Your task to perform on an android device: Go to Wikipedia Image 0: 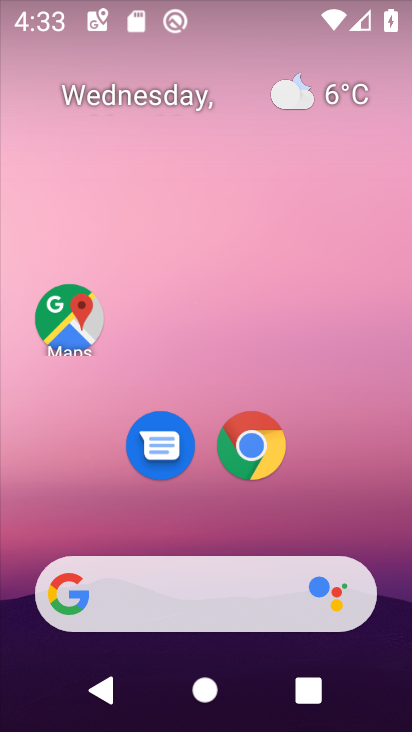
Step 0: click (260, 463)
Your task to perform on an android device: Go to Wikipedia Image 1: 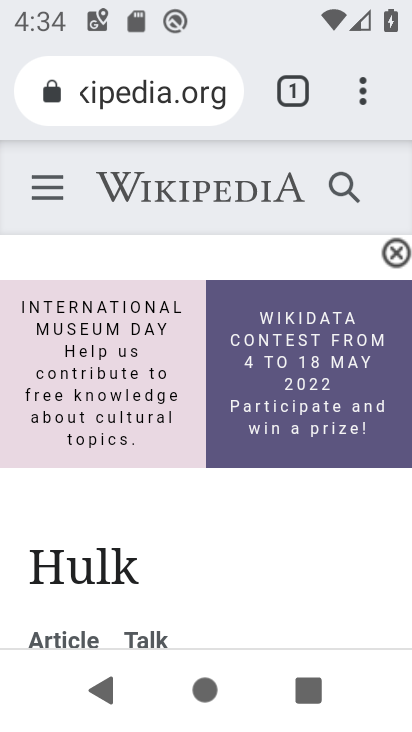
Step 1: click (256, 445)
Your task to perform on an android device: Go to Wikipedia Image 2: 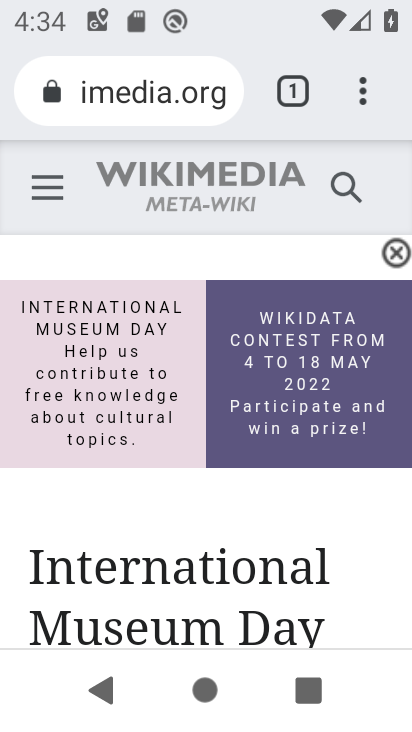
Step 2: click (182, 92)
Your task to perform on an android device: Go to Wikipedia Image 3: 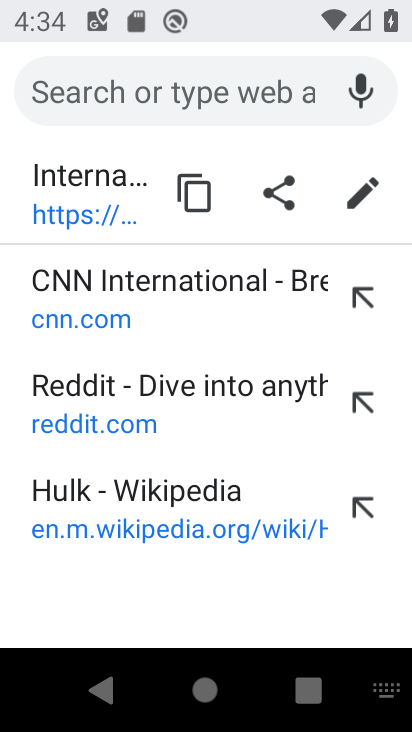
Step 3: type "wikipedia.org"
Your task to perform on an android device: Go to Wikipedia Image 4: 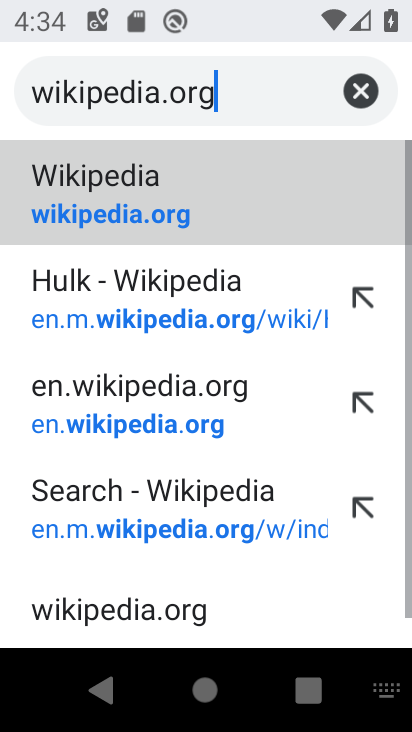
Step 4: click (118, 200)
Your task to perform on an android device: Go to Wikipedia Image 5: 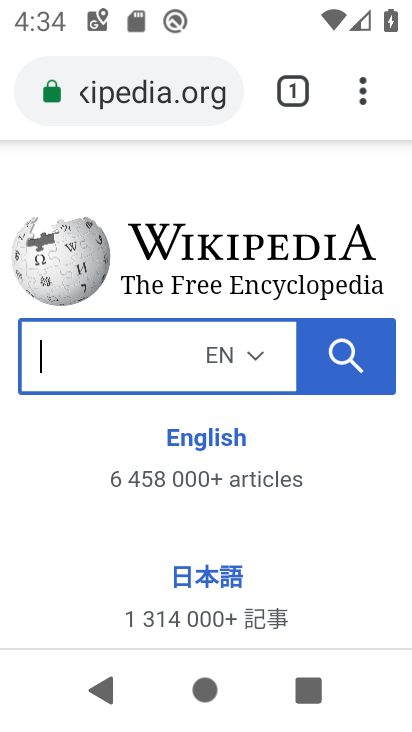
Step 5: task complete